Your task to perform on an android device: Go to privacy settings Image 0: 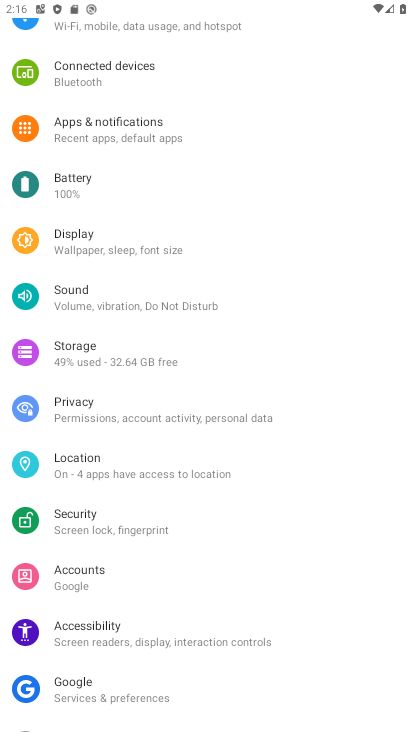
Step 0: click (129, 406)
Your task to perform on an android device: Go to privacy settings Image 1: 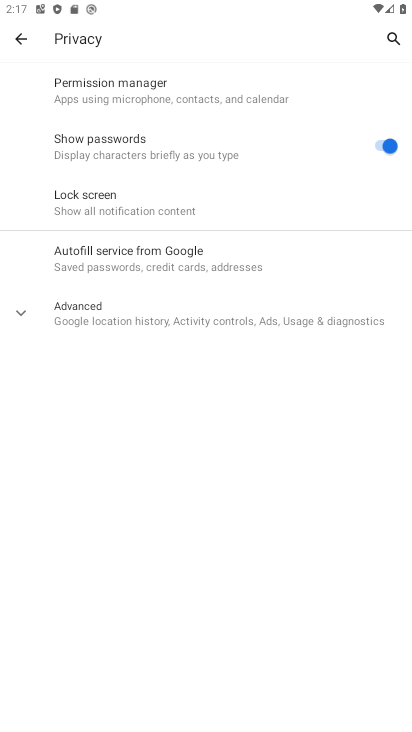
Step 1: task complete